Your task to perform on an android device: Show me productivity apps on the Play Store Image 0: 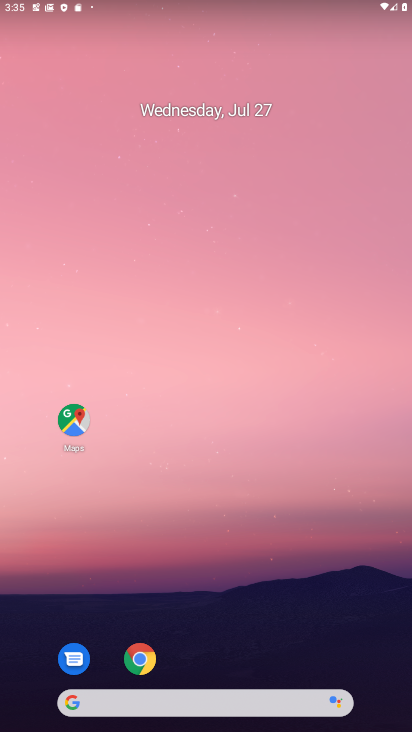
Step 0: drag from (178, 663) to (211, 346)
Your task to perform on an android device: Show me productivity apps on the Play Store Image 1: 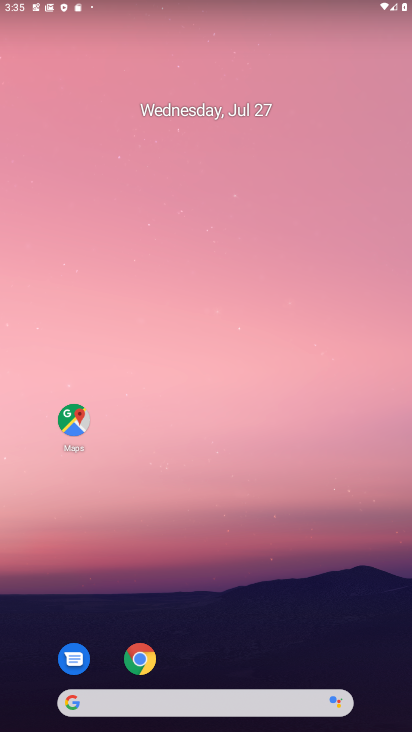
Step 1: drag from (179, 682) to (199, 340)
Your task to perform on an android device: Show me productivity apps on the Play Store Image 2: 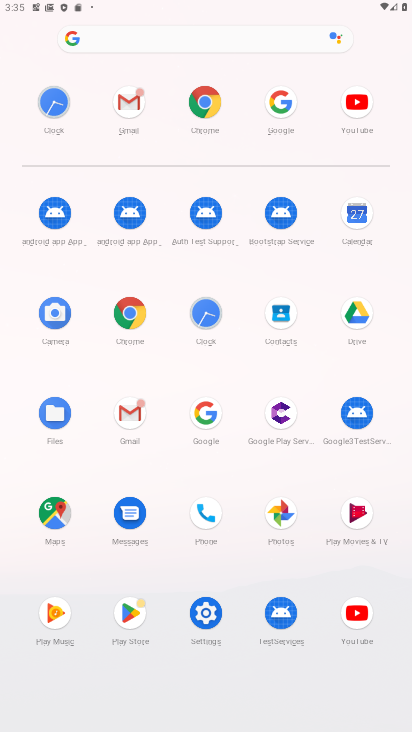
Step 2: click (124, 617)
Your task to perform on an android device: Show me productivity apps on the Play Store Image 3: 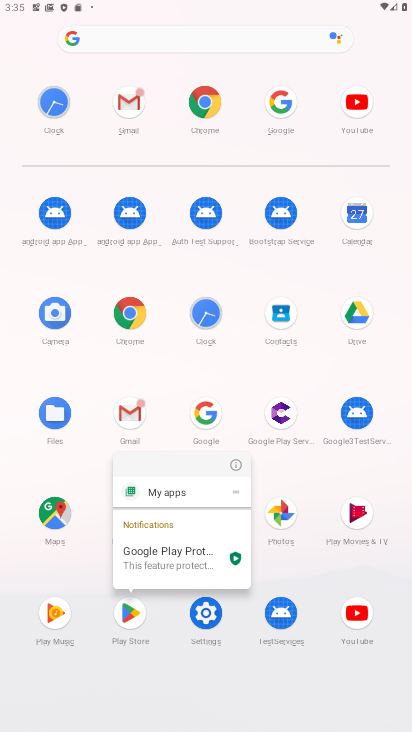
Step 3: click (124, 616)
Your task to perform on an android device: Show me productivity apps on the Play Store Image 4: 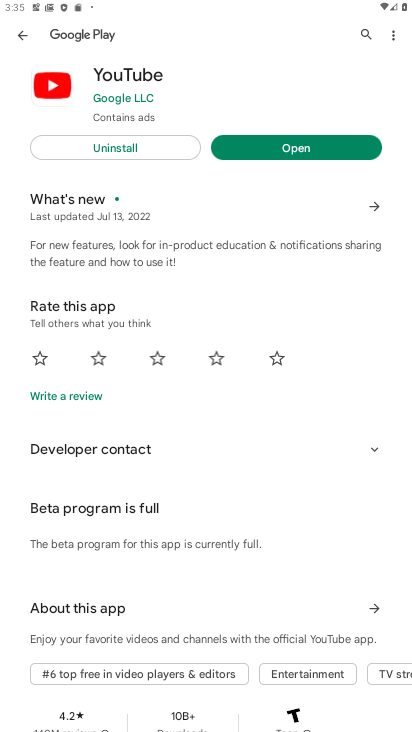
Step 4: click (24, 35)
Your task to perform on an android device: Show me productivity apps on the Play Store Image 5: 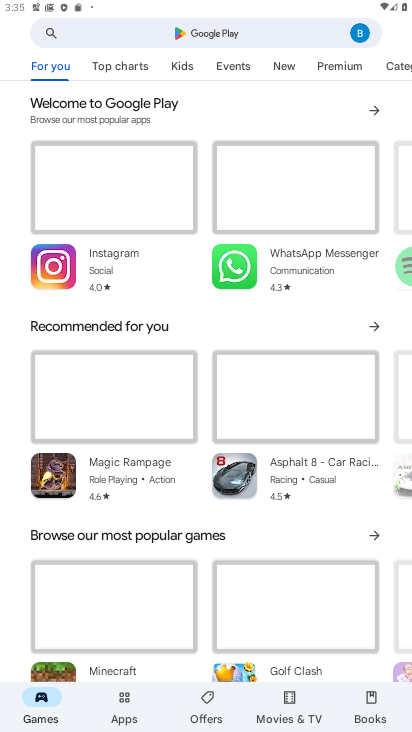
Step 5: click (125, 710)
Your task to perform on an android device: Show me productivity apps on the Play Store Image 6: 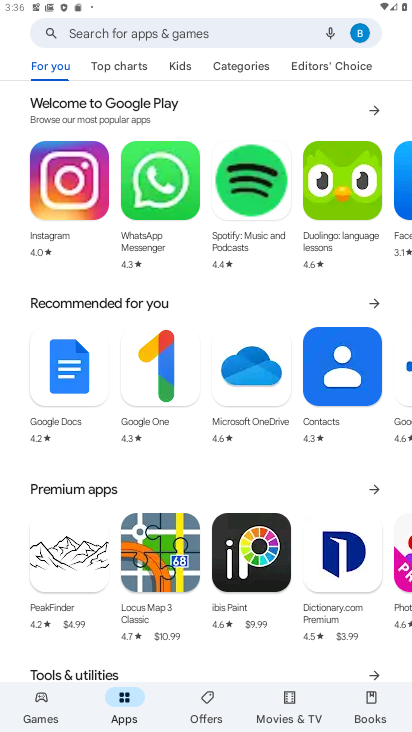
Step 6: task complete